Your task to perform on an android device: Open the calendar app, open the side menu, and click the "Day" option Image 0: 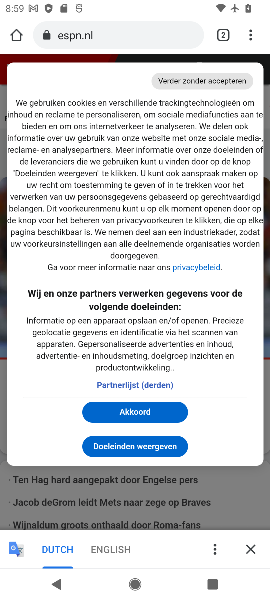
Step 0: press home button
Your task to perform on an android device: Open the calendar app, open the side menu, and click the "Day" option Image 1: 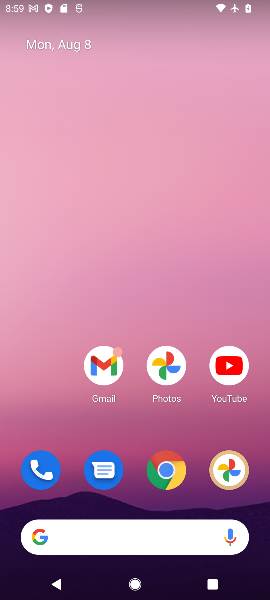
Step 1: drag from (117, 517) to (117, 281)
Your task to perform on an android device: Open the calendar app, open the side menu, and click the "Day" option Image 2: 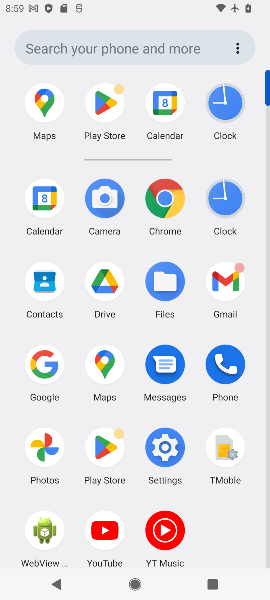
Step 2: click (159, 110)
Your task to perform on an android device: Open the calendar app, open the side menu, and click the "Day" option Image 3: 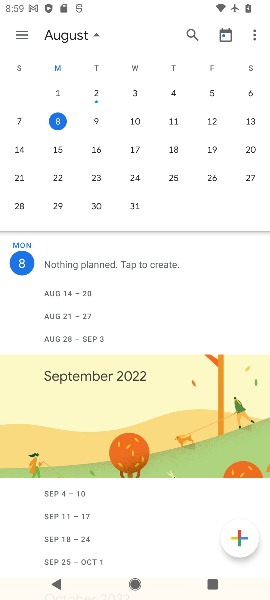
Step 3: click (23, 35)
Your task to perform on an android device: Open the calendar app, open the side menu, and click the "Day" option Image 4: 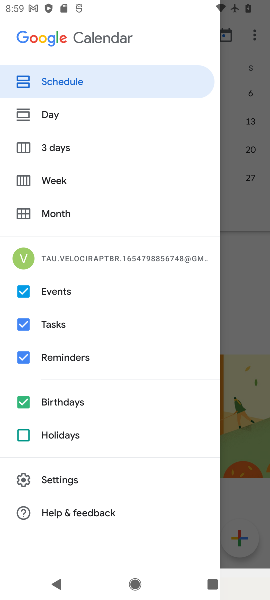
Step 4: click (54, 112)
Your task to perform on an android device: Open the calendar app, open the side menu, and click the "Day" option Image 5: 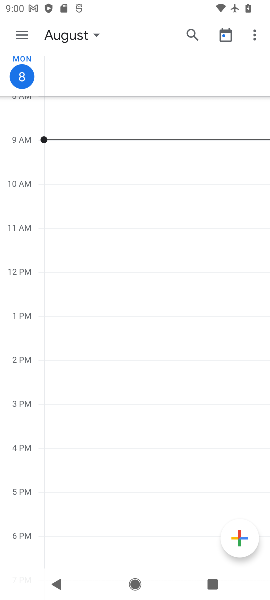
Step 5: task complete